Your task to perform on an android device: Open wifi settings Image 0: 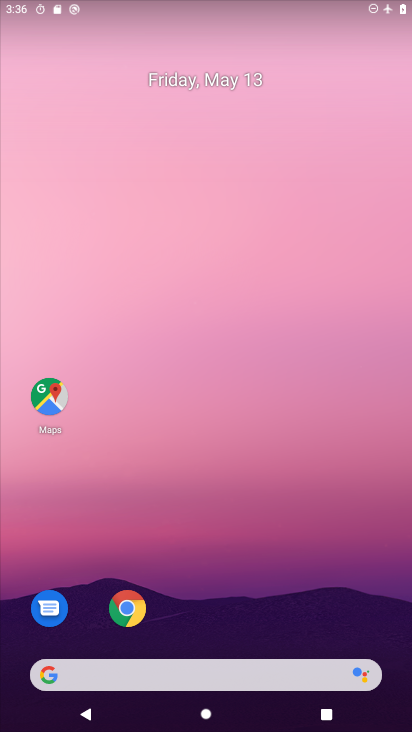
Step 0: drag from (237, 10) to (259, 341)
Your task to perform on an android device: Open wifi settings Image 1: 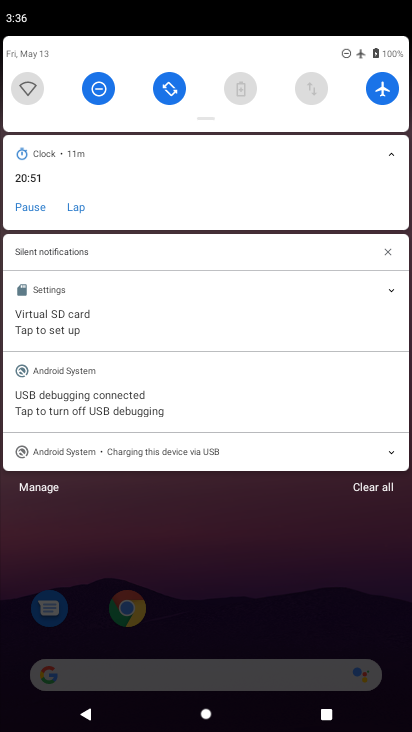
Step 1: click (30, 94)
Your task to perform on an android device: Open wifi settings Image 2: 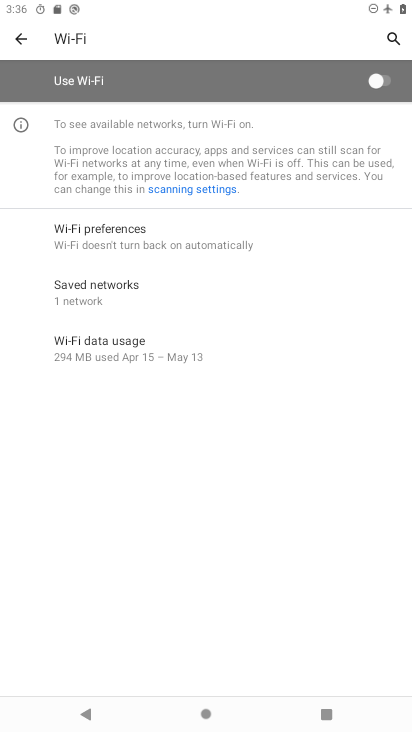
Step 2: task complete